Your task to perform on an android device: all mails in gmail Image 0: 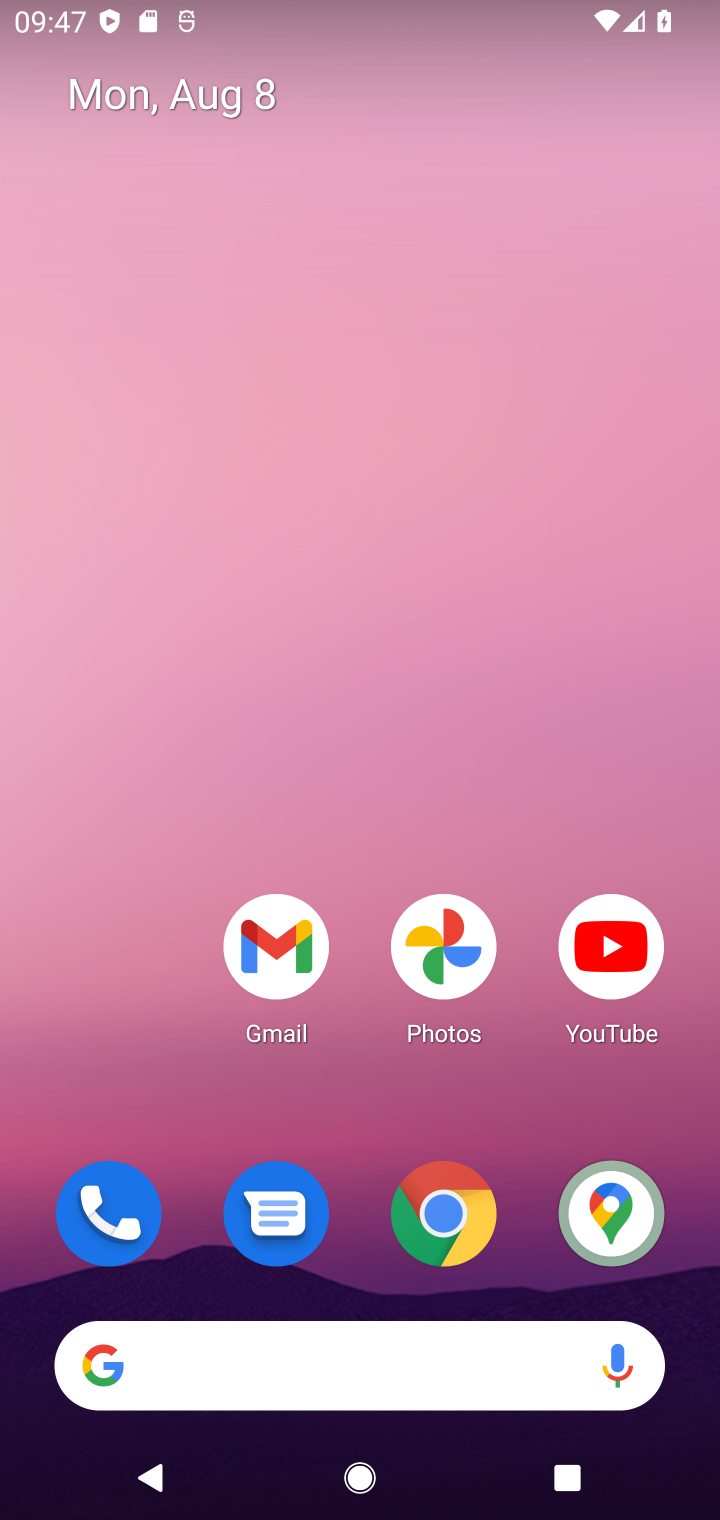
Step 0: drag from (390, 1126) to (340, 212)
Your task to perform on an android device: all mails in gmail Image 1: 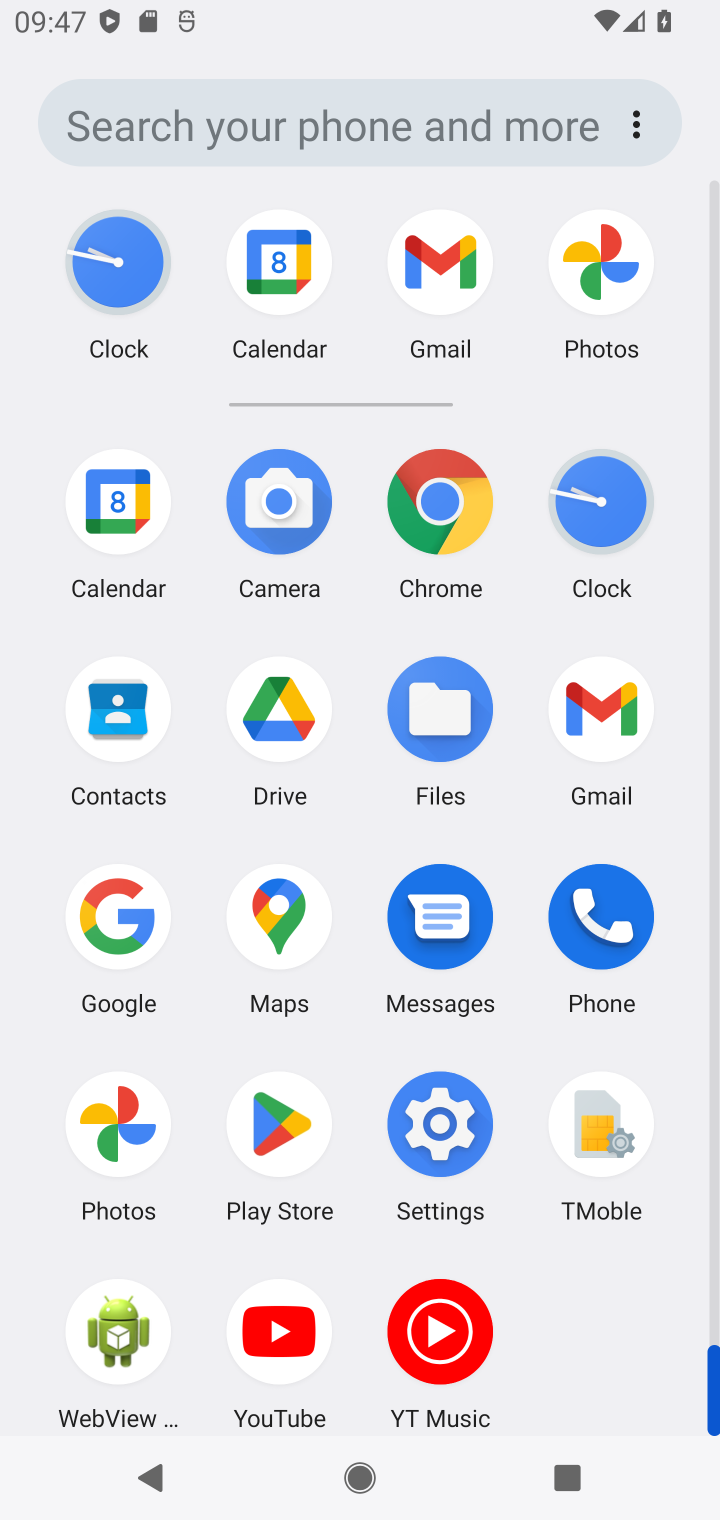
Step 1: click (625, 743)
Your task to perform on an android device: all mails in gmail Image 2: 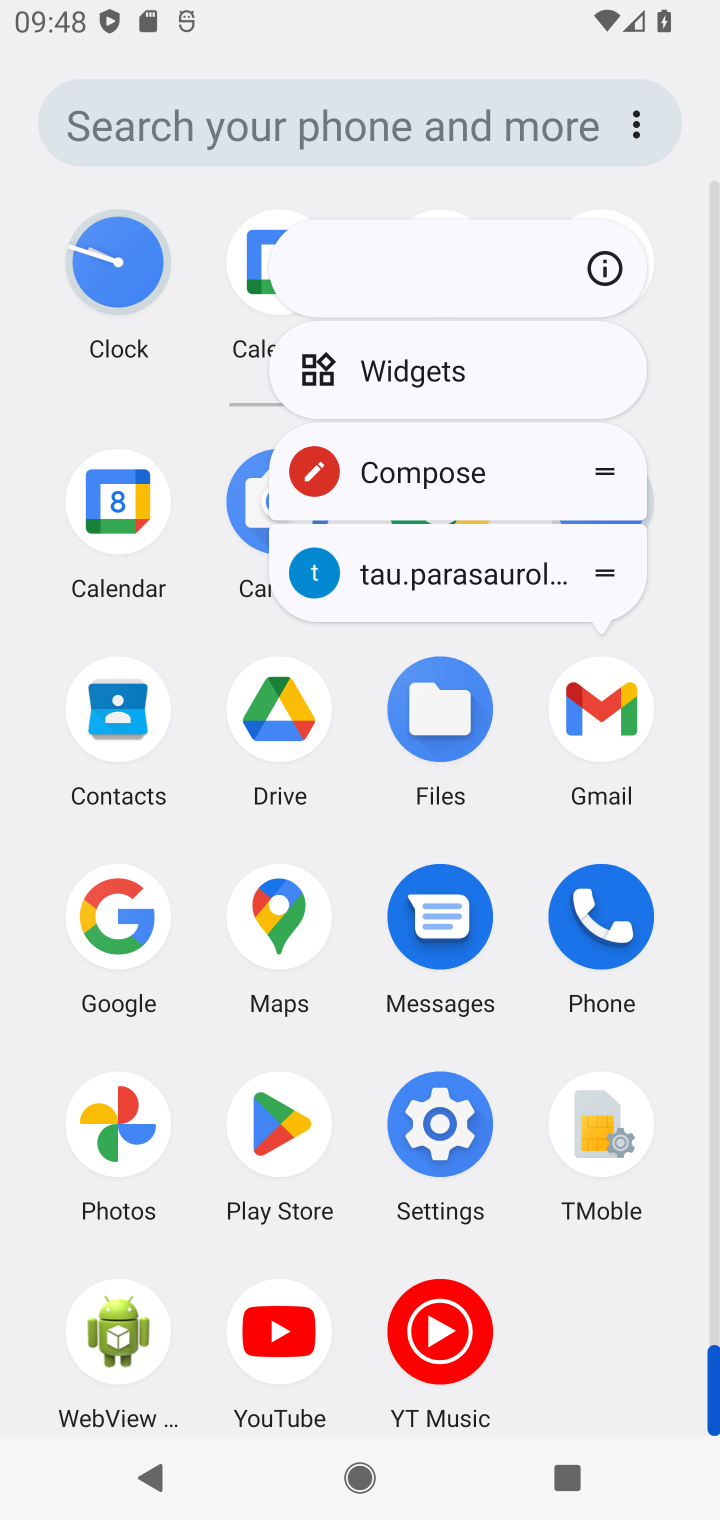
Step 2: click (620, 732)
Your task to perform on an android device: all mails in gmail Image 3: 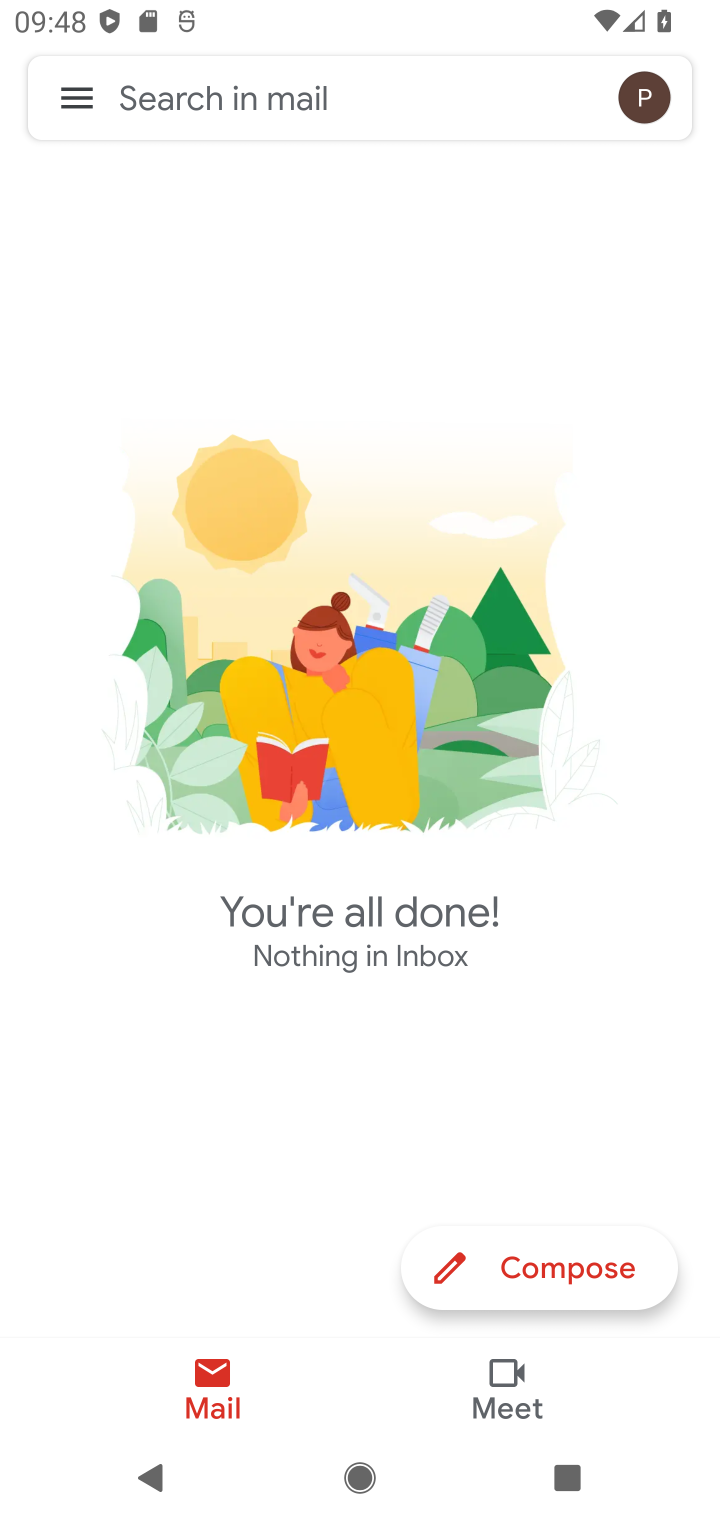
Step 3: click (66, 121)
Your task to perform on an android device: all mails in gmail Image 4: 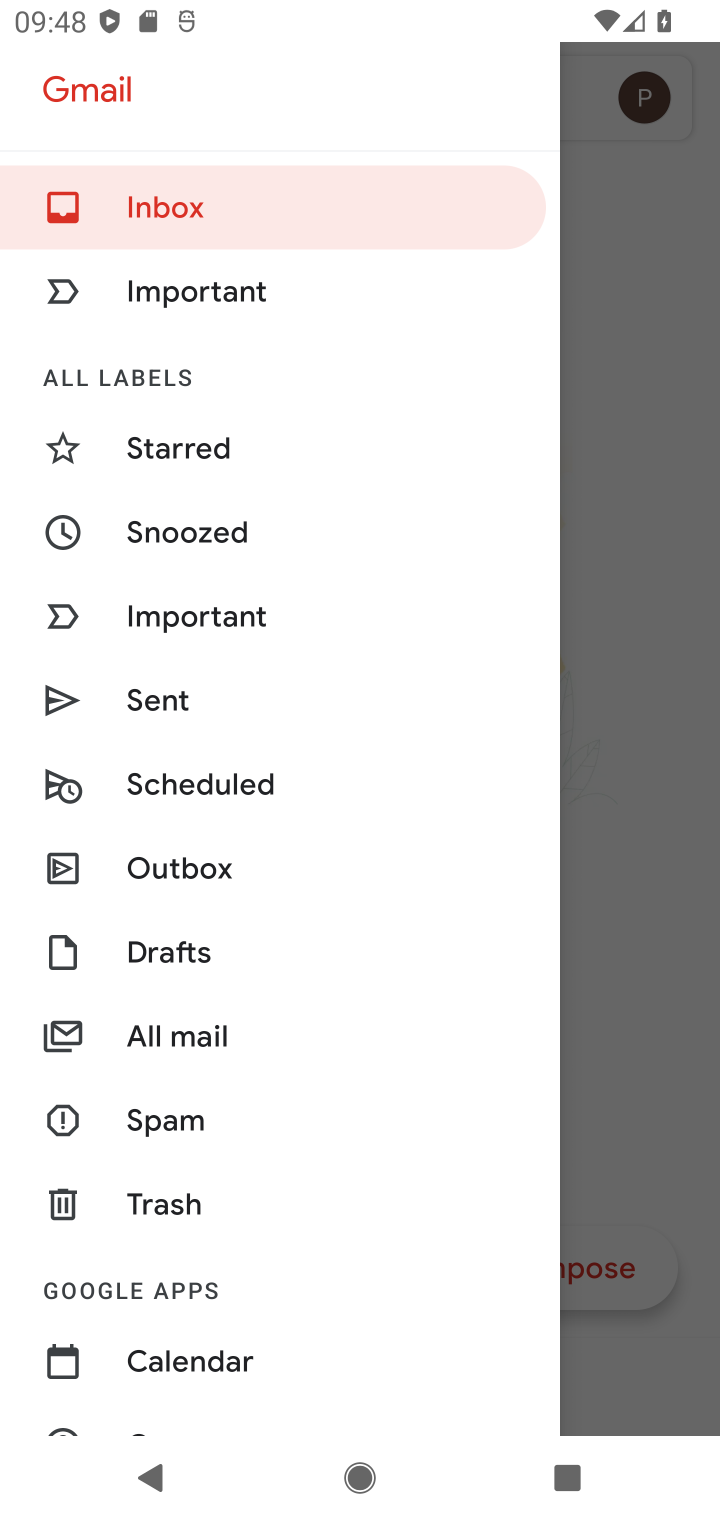
Step 4: click (251, 1032)
Your task to perform on an android device: all mails in gmail Image 5: 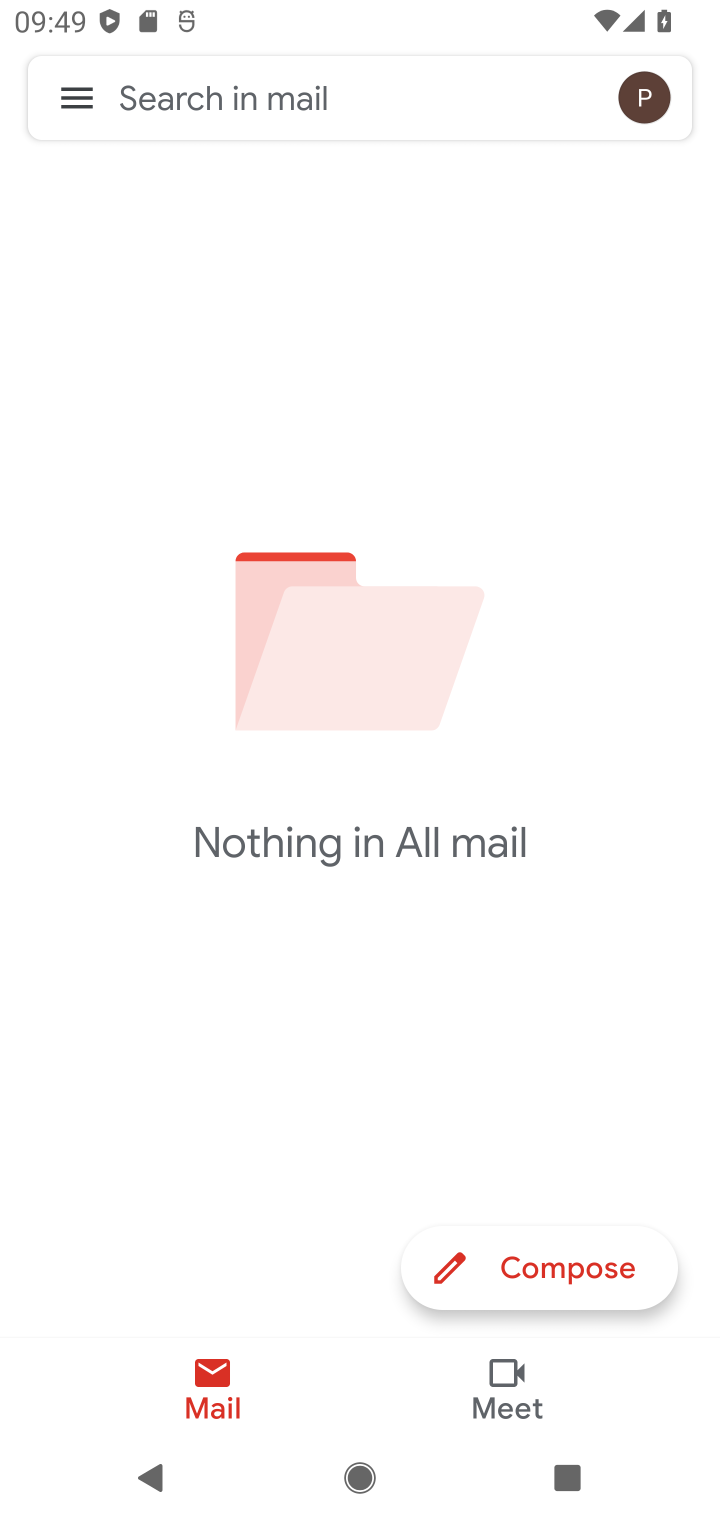
Step 5: task complete